Your task to perform on an android device: Find coffee shops on Maps Image 0: 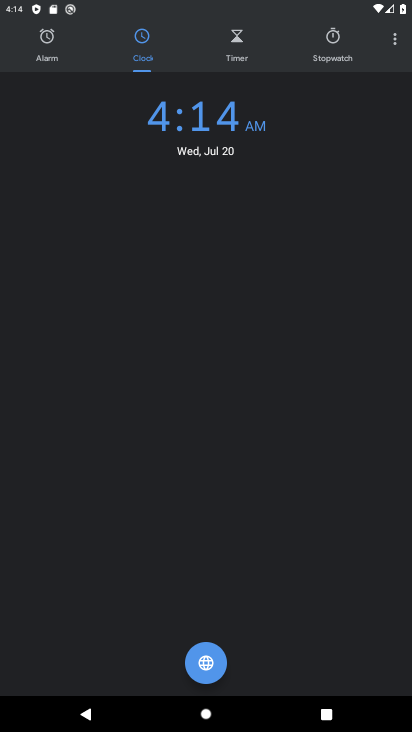
Step 0: press back button
Your task to perform on an android device: Find coffee shops on Maps Image 1: 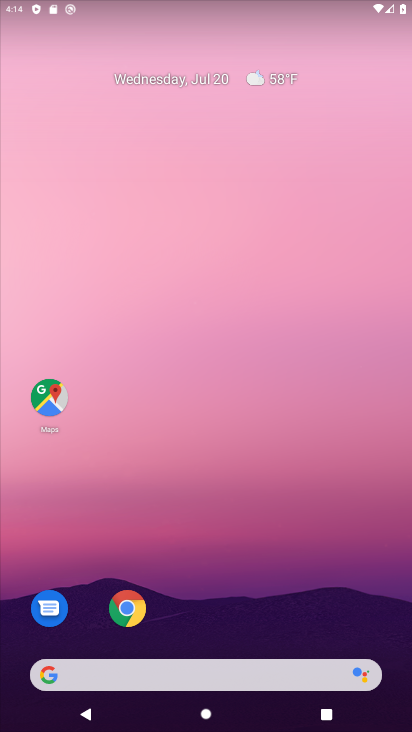
Step 1: click (41, 381)
Your task to perform on an android device: Find coffee shops on Maps Image 2: 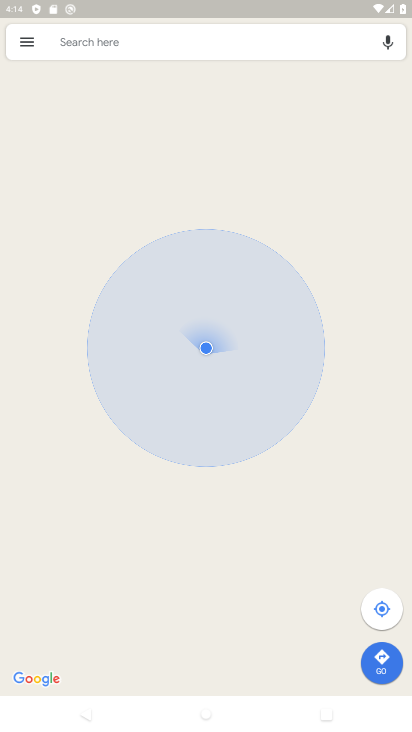
Step 2: click (235, 32)
Your task to perform on an android device: Find coffee shops on Maps Image 3: 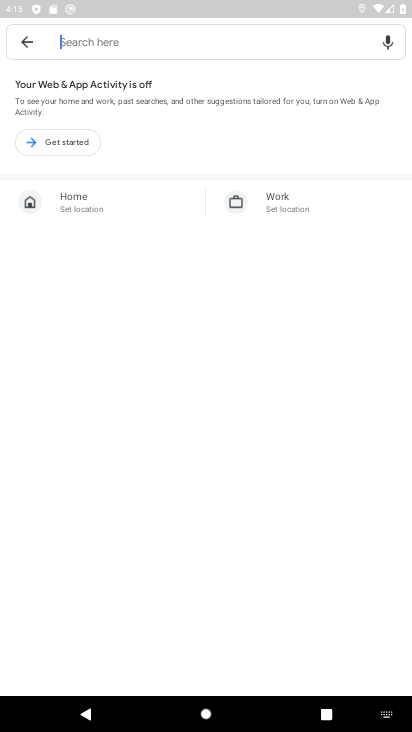
Step 3: click (46, 145)
Your task to perform on an android device: Find coffee shops on Maps Image 4: 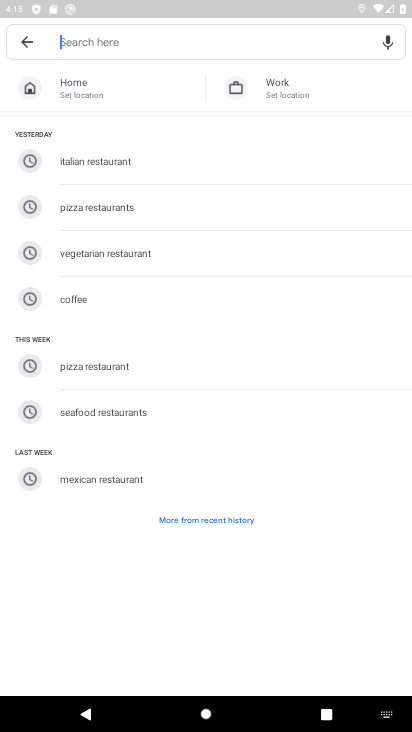
Step 4: click (70, 288)
Your task to perform on an android device: Find coffee shops on Maps Image 5: 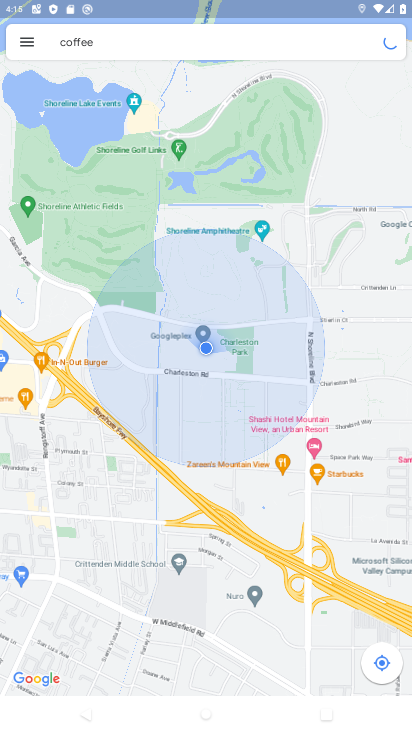
Step 5: task complete